Your task to perform on an android device: Search for Italian restaurants on Maps Image 0: 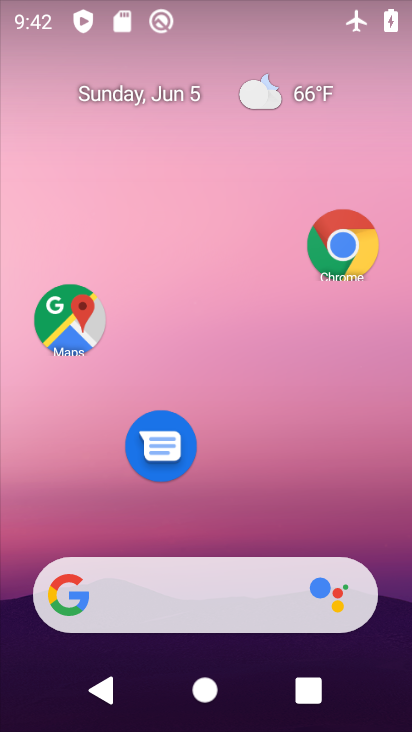
Step 0: click (88, 318)
Your task to perform on an android device: Search for Italian restaurants on Maps Image 1: 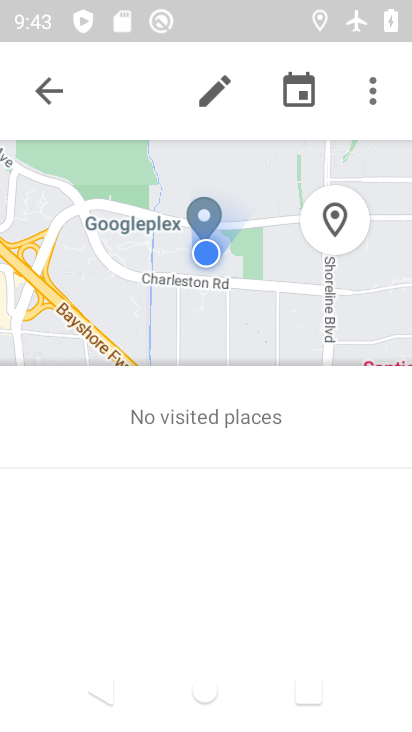
Step 1: click (56, 95)
Your task to perform on an android device: Search for Italian restaurants on Maps Image 2: 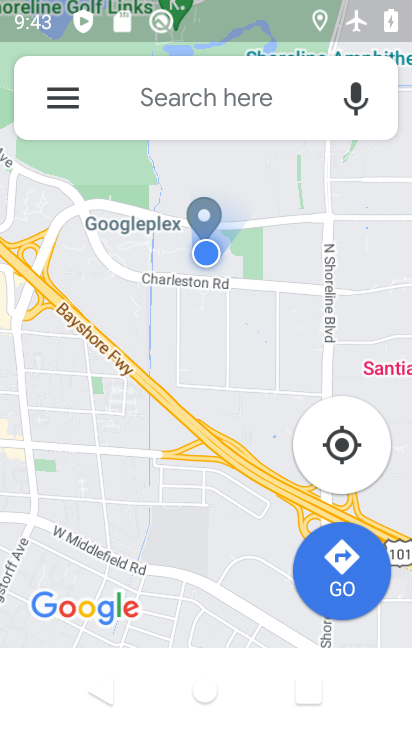
Step 2: click (161, 102)
Your task to perform on an android device: Search for Italian restaurants on Maps Image 3: 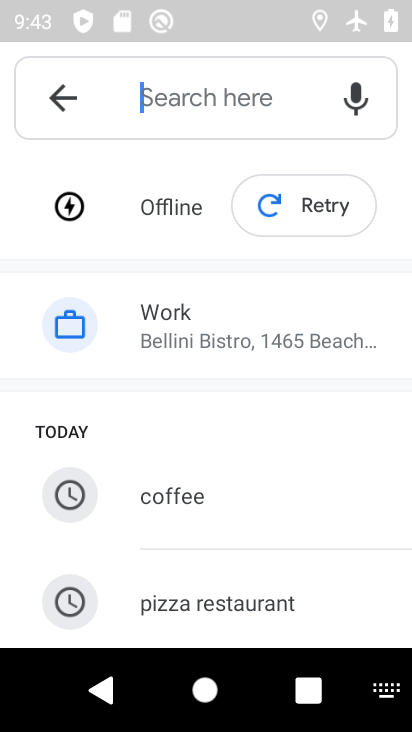
Step 3: type "Italian restaurants"
Your task to perform on an android device: Search for Italian restaurants on Maps Image 4: 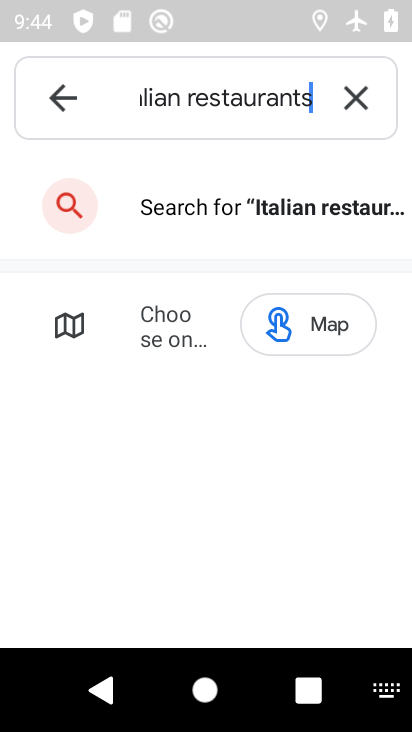
Step 4: task complete